Your task to perform on an android device: all mails in gmail Image 0: 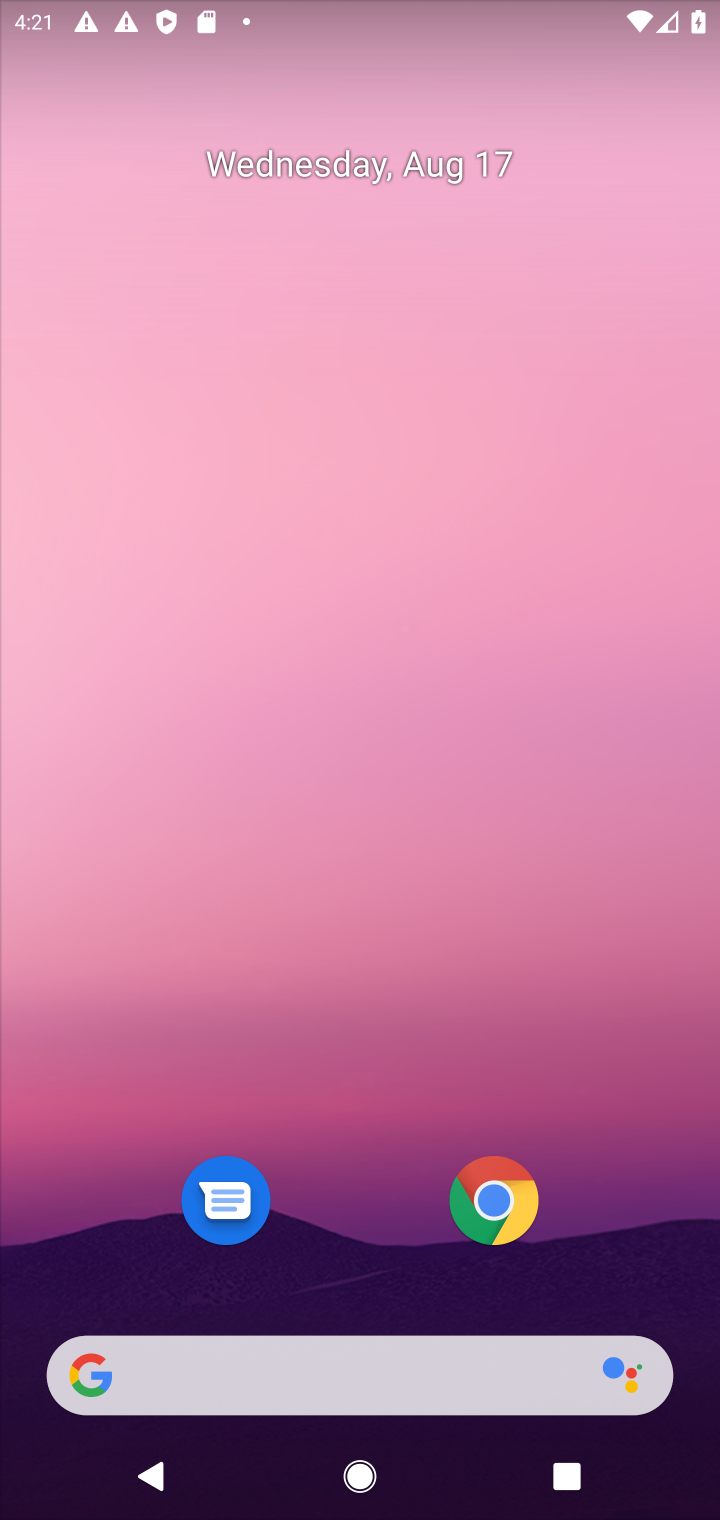
Step 0: drag from (357, 1297) to (405, 216)
Your task to perform on an android device: all mails in gmail Image 1: 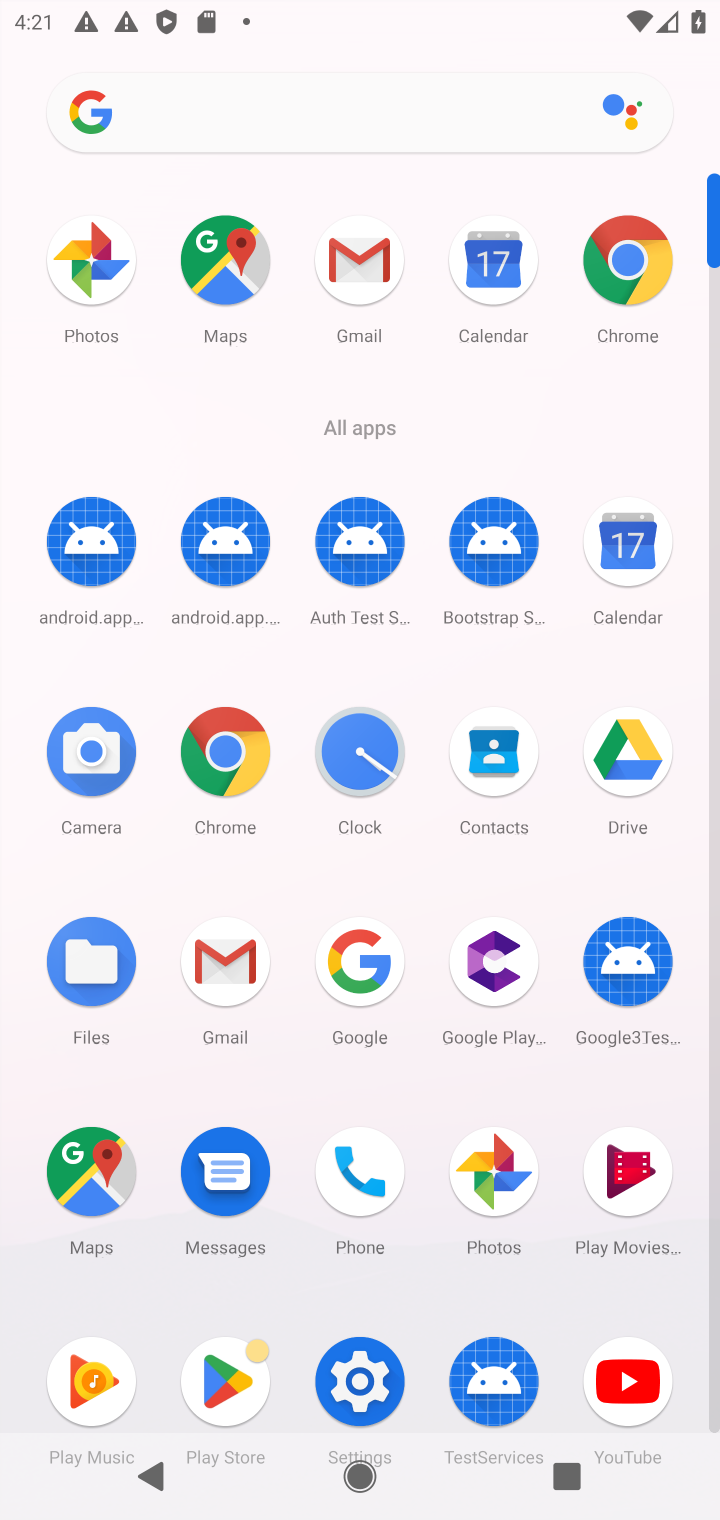
Step 1: click (213, 972)
Your task to perform on an android device: all mails in gmail Image 2: 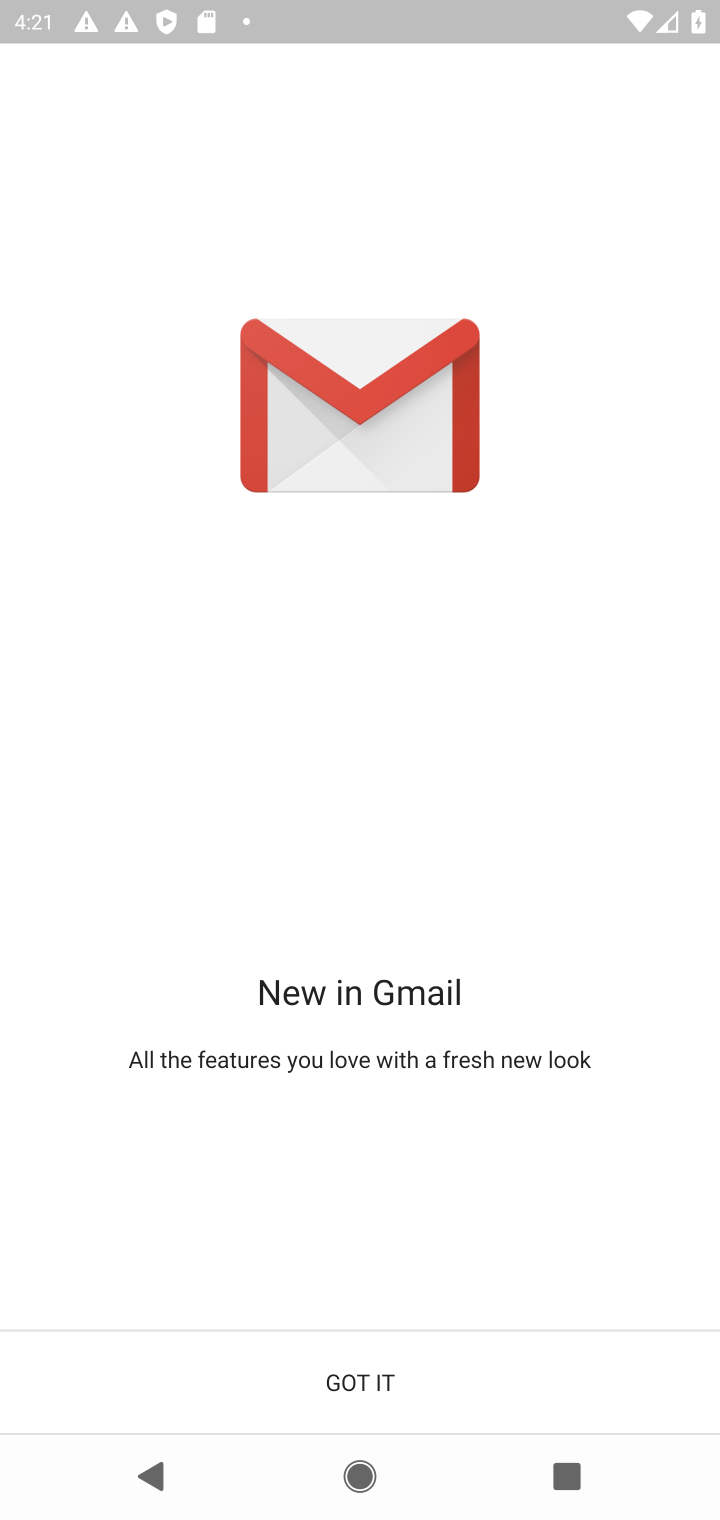
Step 2: click (377, 1383)
Your task to perform on an android device: all mails in gmail Image 3: 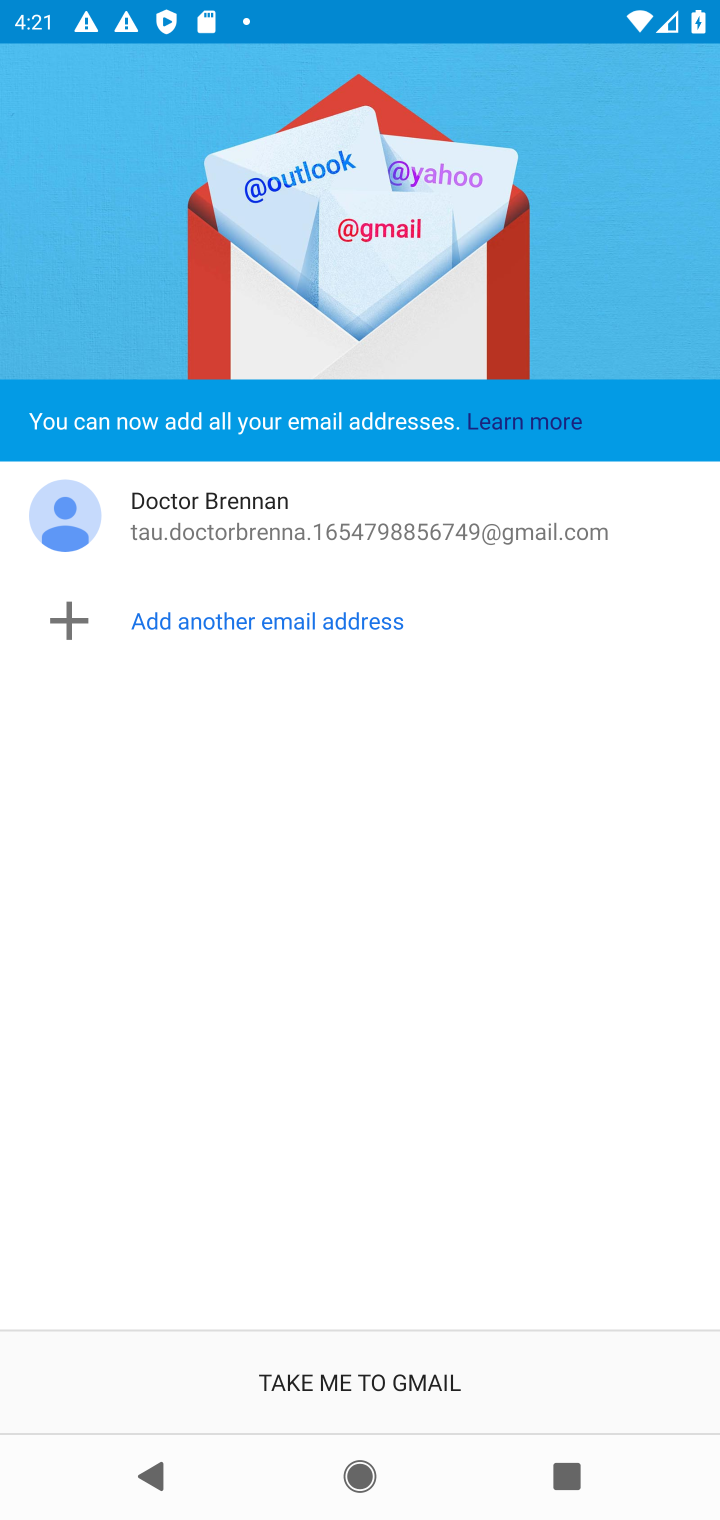
Step 3: click (377, 1383)
Your task to perform on an android device: all mails in gmail Image 4: 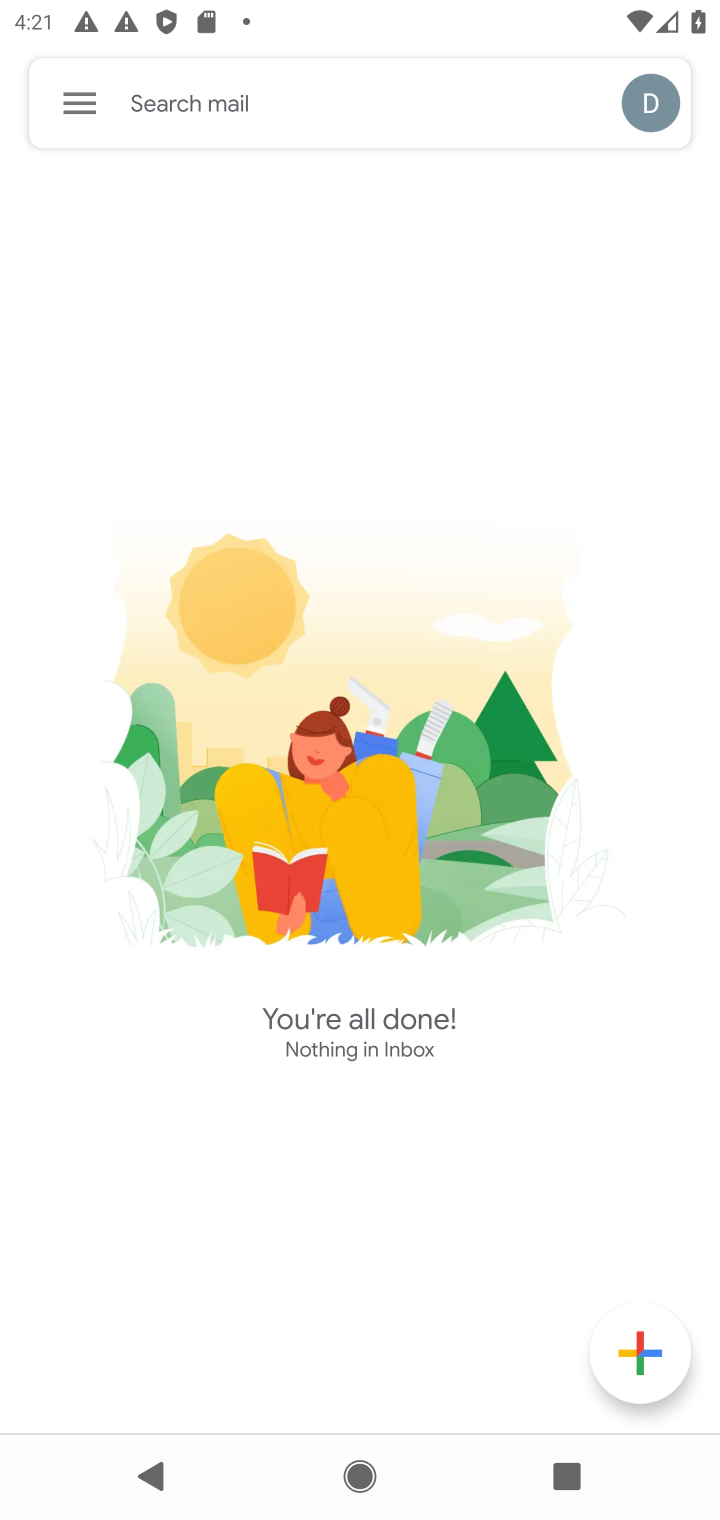
Step 4: click (89, 92)
Your task to perform on an android device: all mails in gmail Image 5: 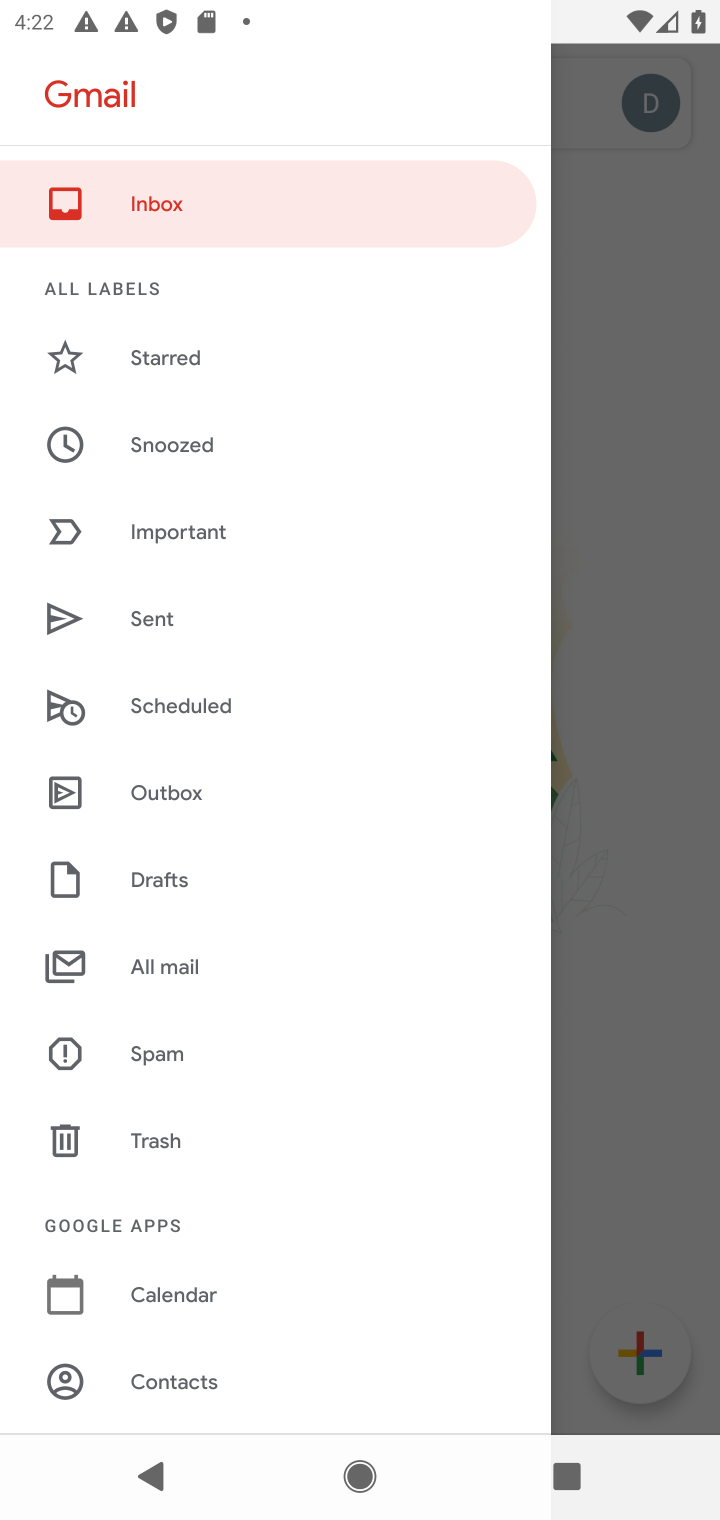
Step 5: click (181, 958)
Your task to perform on an android device: all mails in gmail Image 6: 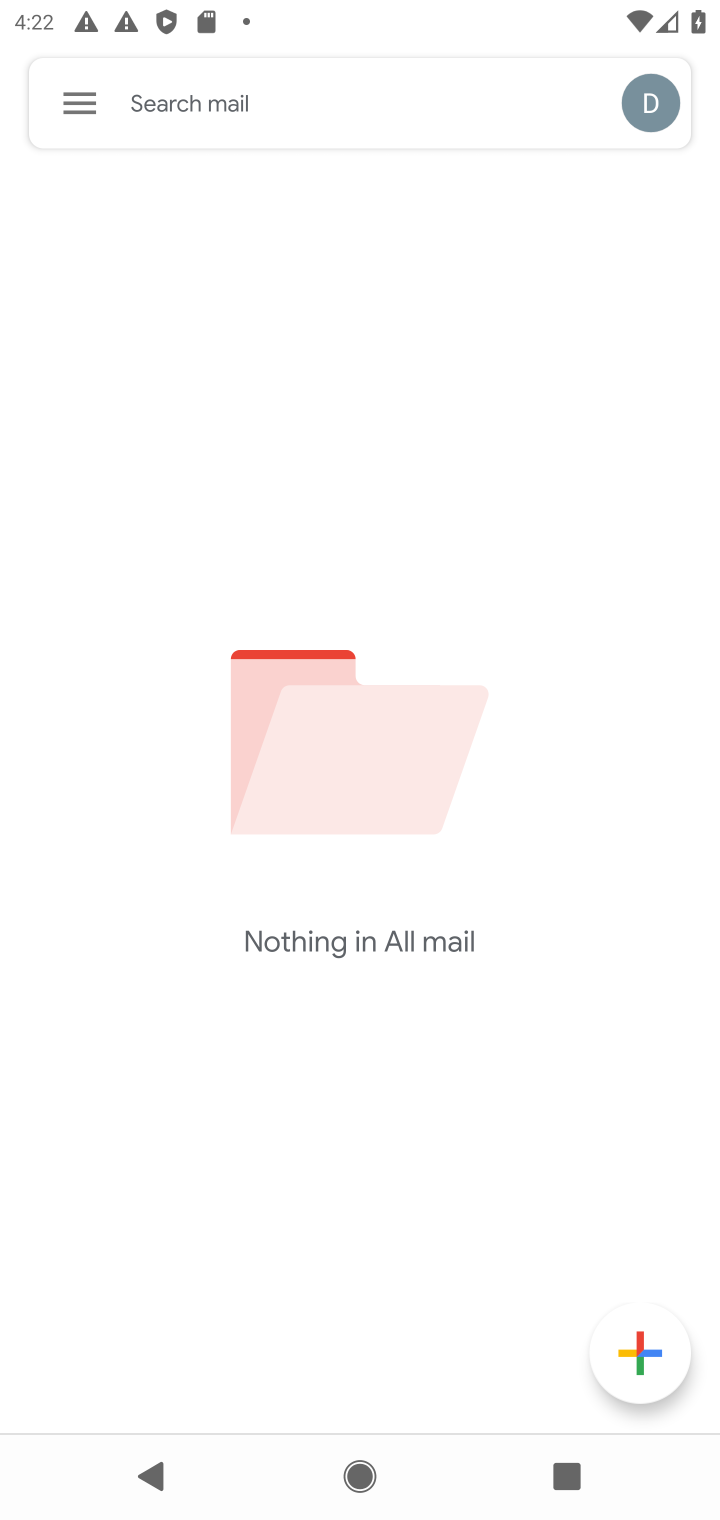
Step 6: task complete